Your task to perform on an android device: Open Chrome and go to settings Image 0: 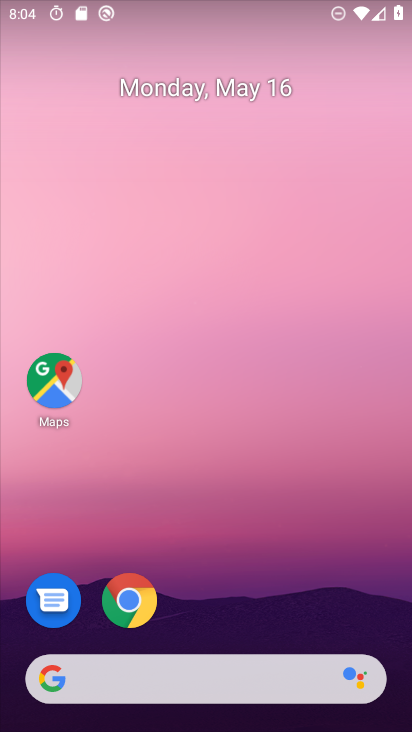
Step 0: click (127, 608)
Your task to perform on an android device: Open Chrome and go to settings Image 1: 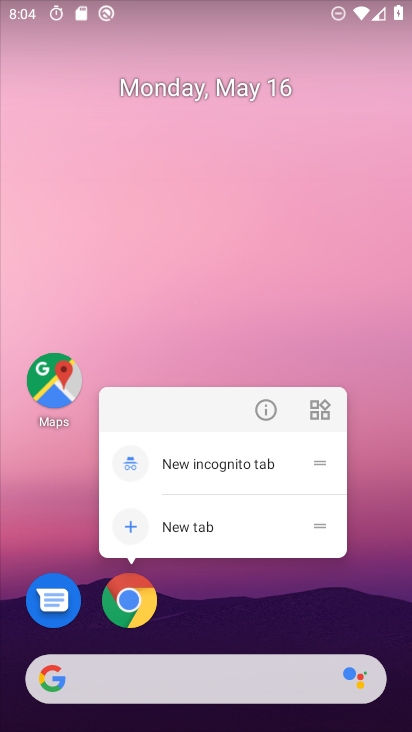
Step 1: click (133, 607)
Your task to perform on an android device: Open Chrome and go to settings Image 2: 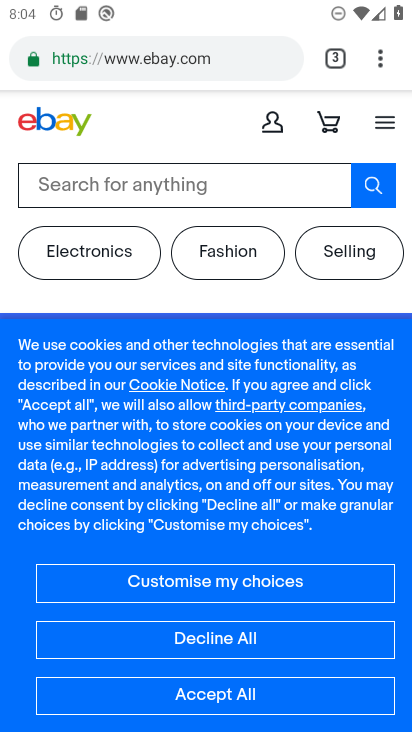
Step 2: task complete